Your task to perform on an android device: clear history in the chrome app Image 0: 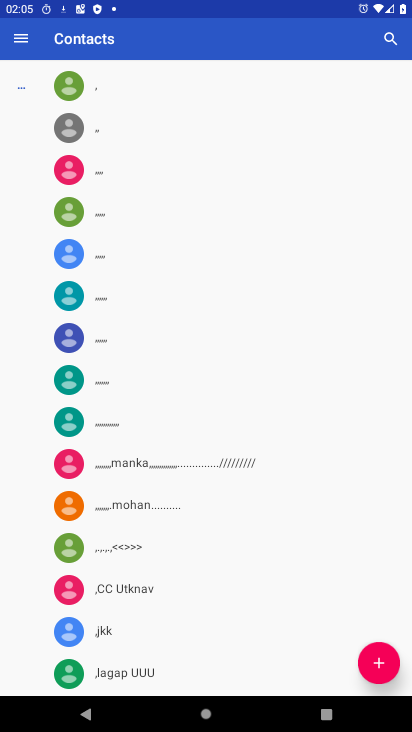
Step 0: press home button
Your task to perform on an android device: clear history in the chrome app Image 1: 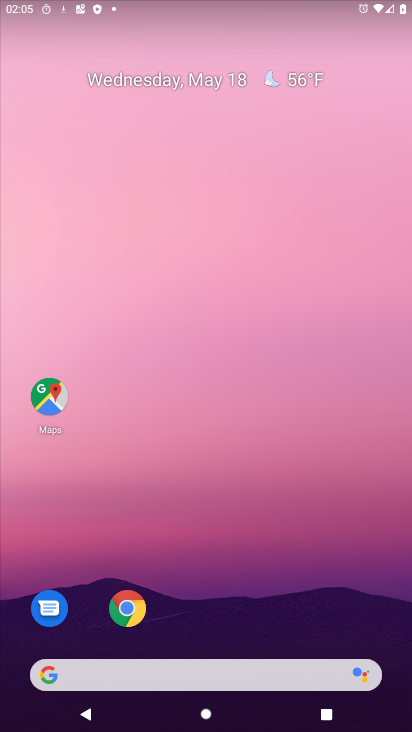
Step 1: drag from (265, 672) to (216, 326)
Your task to perform on an android device: clear history in the chrome app Image 2: 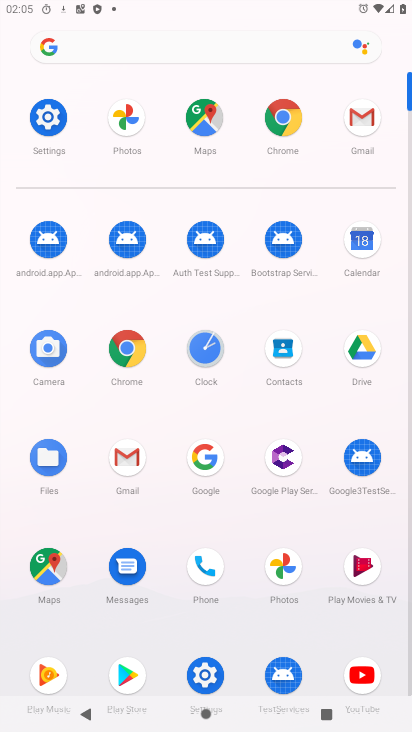
Step 2: click (141, 357)
Your task to perform on an android device: clear history in the chrome app Image 3: 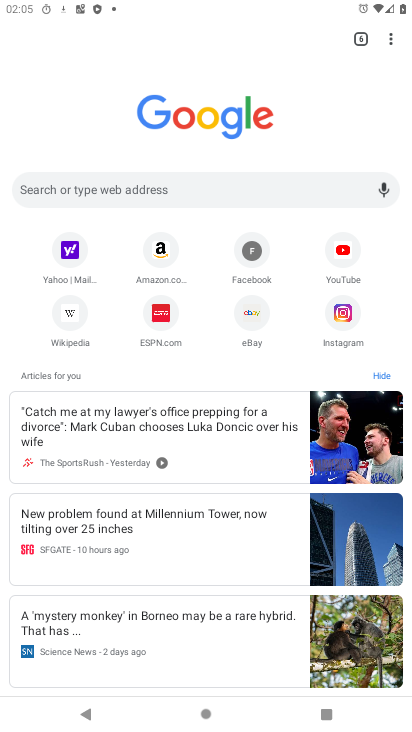
Step 3: click (377, 55)
Your task to perform on an android device: clear history in the chrome app Image 4: 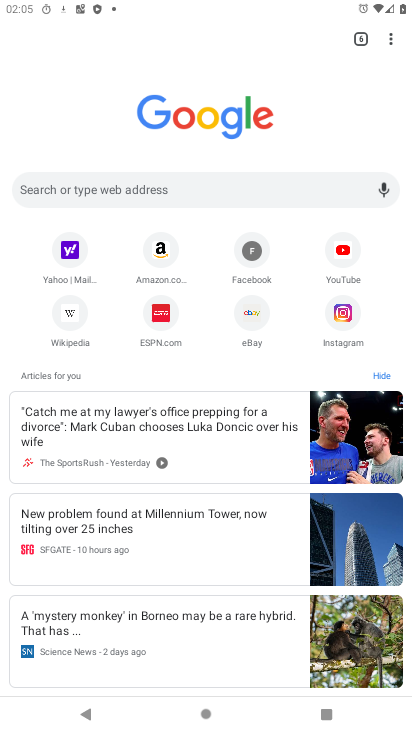
Step 4: click (381, 49)
Your task to perform on an android device: clear history in the chrome app Image 5: 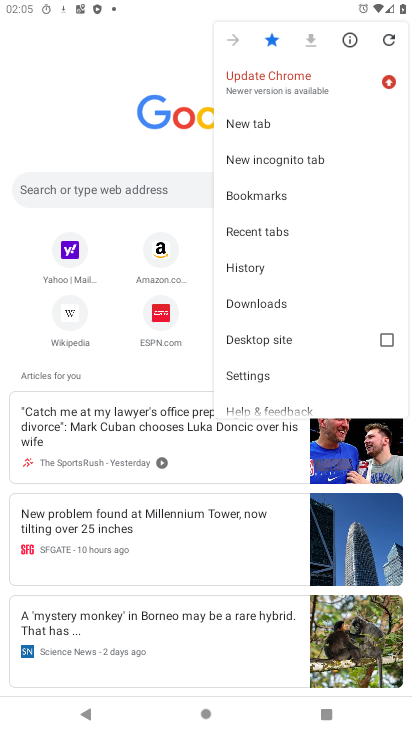
Step 5: click (242, 376)
Your task to perform on an android device: clear history in the chrome app Image 6: 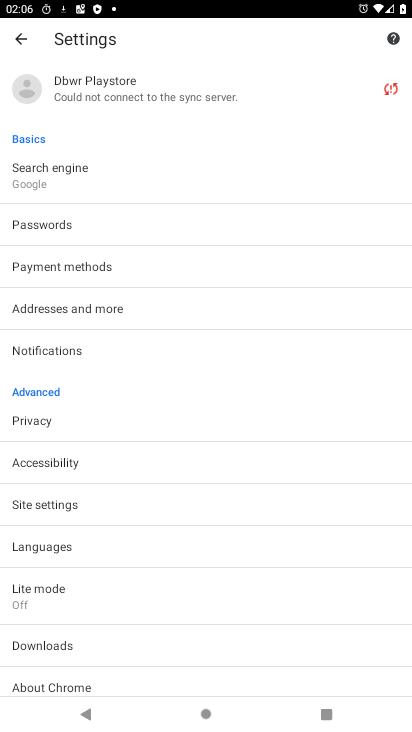
Step 6: click (13, 425)
Your task to perform on an android device: clear history in the chrome app Image 7: 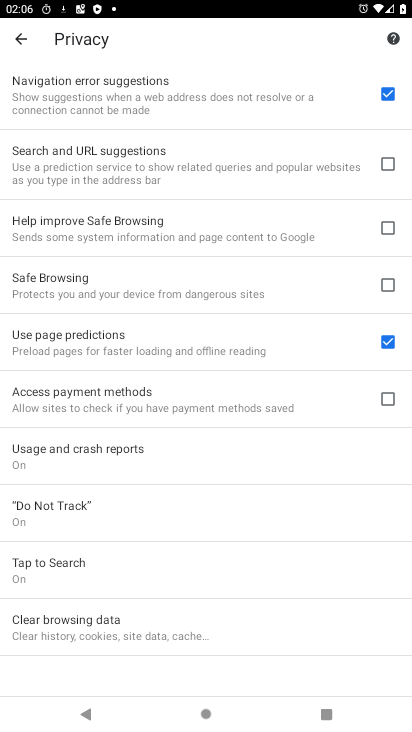
Step 7: click (72, 602)
Your task to perform on an android device: clear history in the chrome app Image 8: 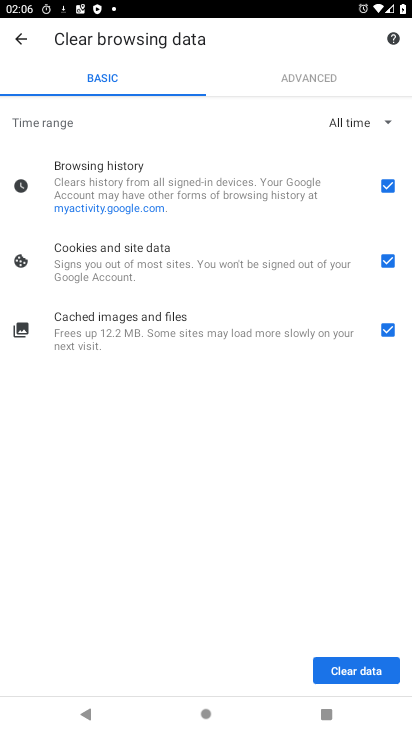
Step 8: click (362, 677)
Your task to perform on an android device: clear history in the chrome app Image 9: 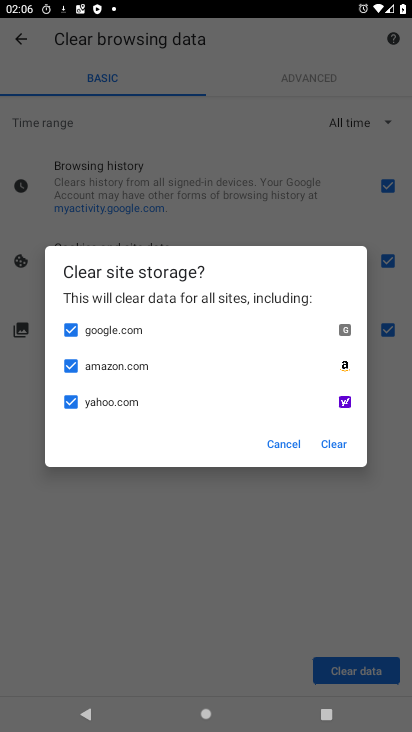
Step 9: task complete